Your task to perform on an android device: Check the news Image 0: 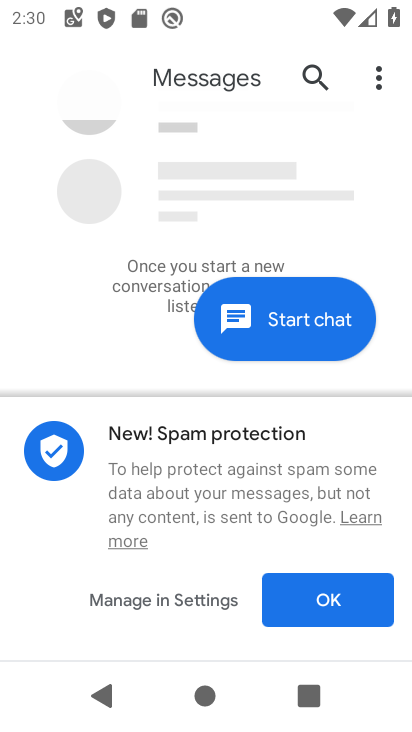
Step 0: press home button
Your task to perform on an android device: Check the news Image 1: 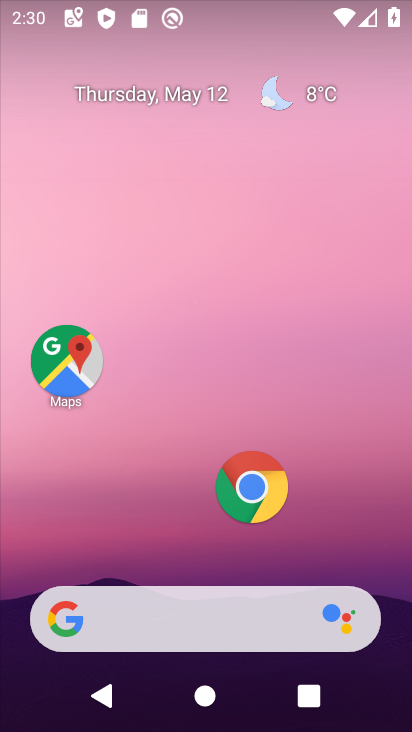
Step 1: click (214, 627)
Your task to perform on an android device: Check the news Image 2: 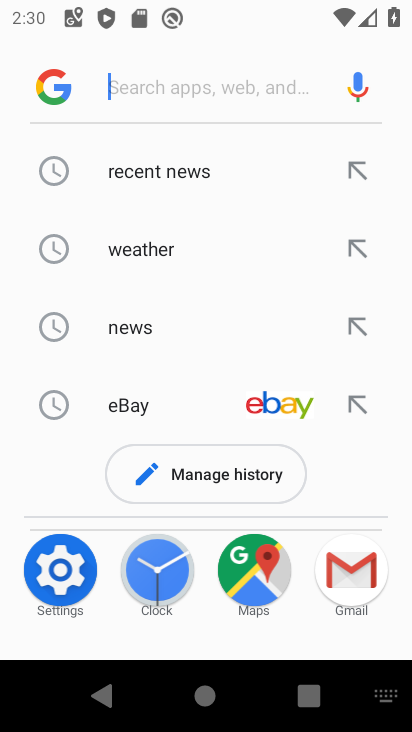
Step 2: click (158, 314)
Your task to perform on an android device: Check the news Image 3: 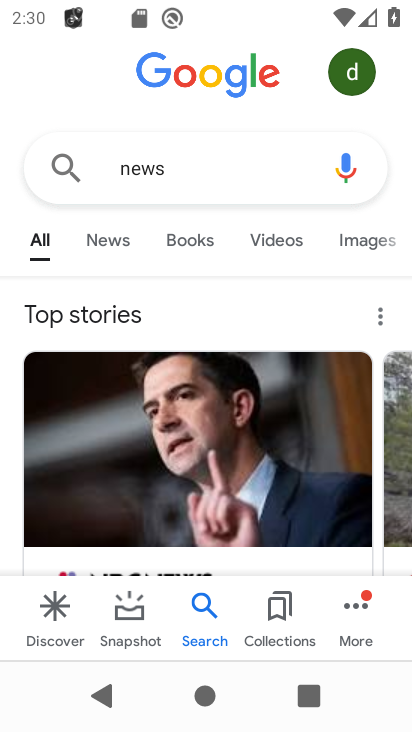
Step 3: task complete